Your task to perform on an android device: turn on priority inbox in the gmail app Image 0: 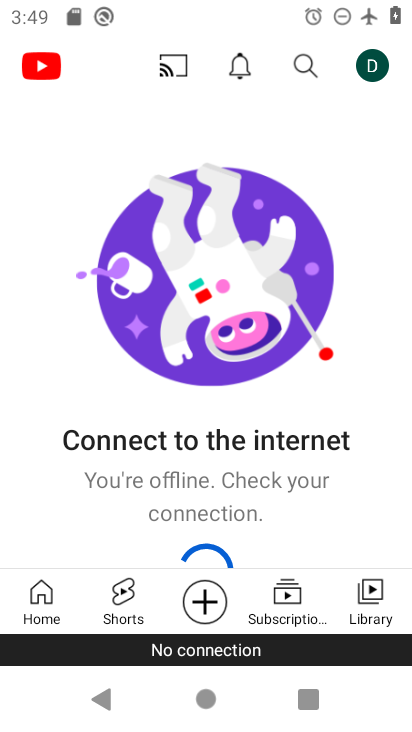
Step 0: press home button
Your task to perform on an android device: turn on priority inbox in the gmail app Image 1: 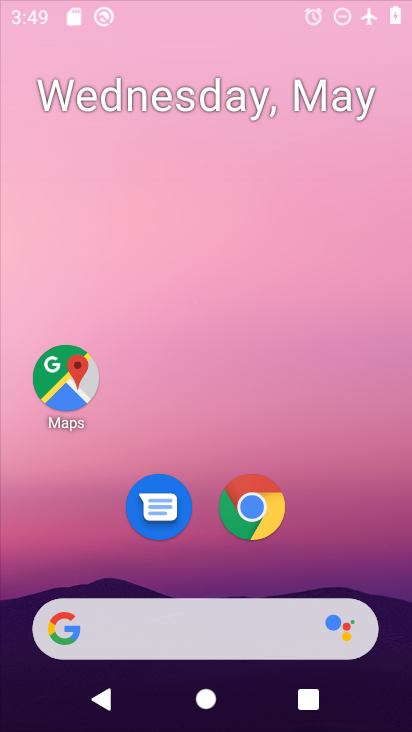
Step 1: drag from (226, 653) to (305, 18)
Your task to perform on an android device: turn on priority inbox in the gmail app Image 2: 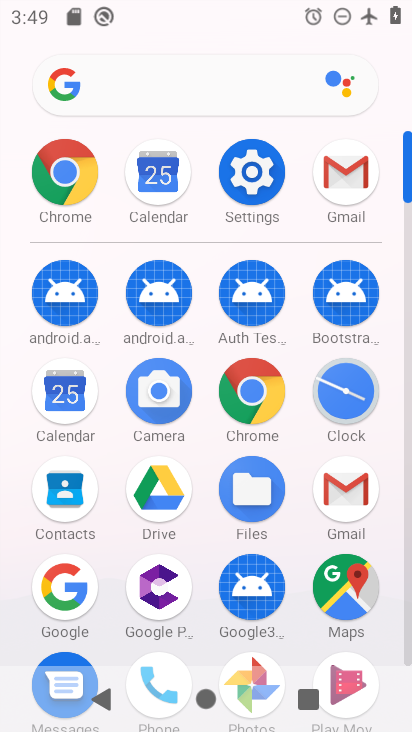
Step 2: click (365, 496)
Your task to perform on an android device: turn on priority inbox in the gmail app Image 3: 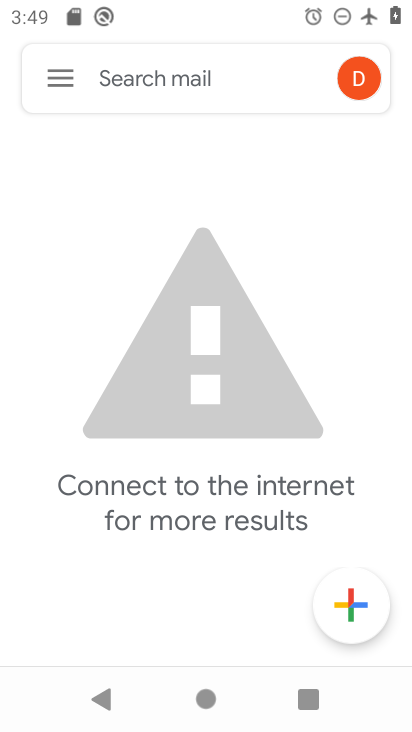
Step 3: click (35, 73)
Your task to perform on an android device: turn on priority inbox in the gmail app Image 4: 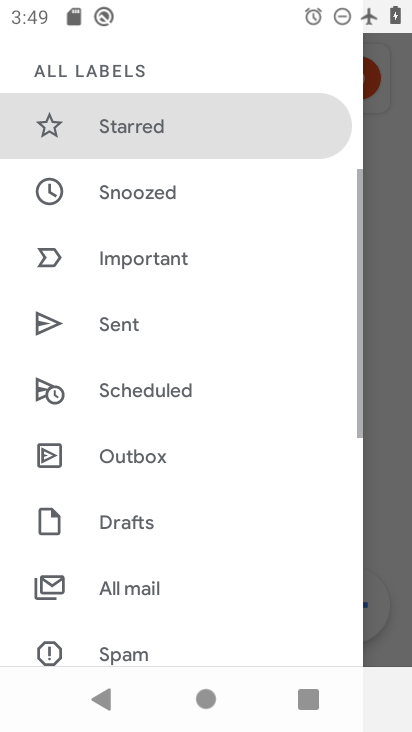
Step 4: drag from (138, 594) to (242, 5)
Your task to perform on an android device: turn on priority inbox in the gmail app Image 5: 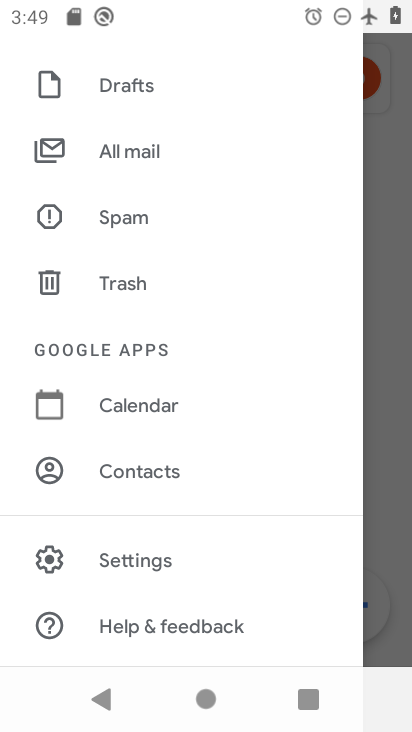
Step 5: click (142, 571)
Your task to perform on an android device: turn on priority inbox in the gmail app Image 6: 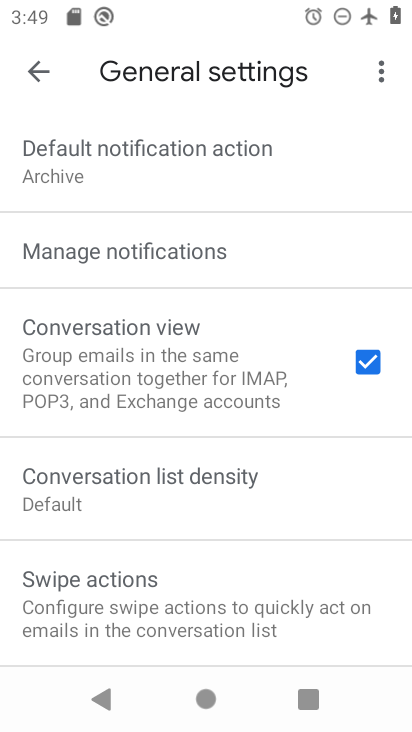
Step 6: click (44, 71)
Your task to perform on an android device: turn on priority inbox in the gmail app Image 7: 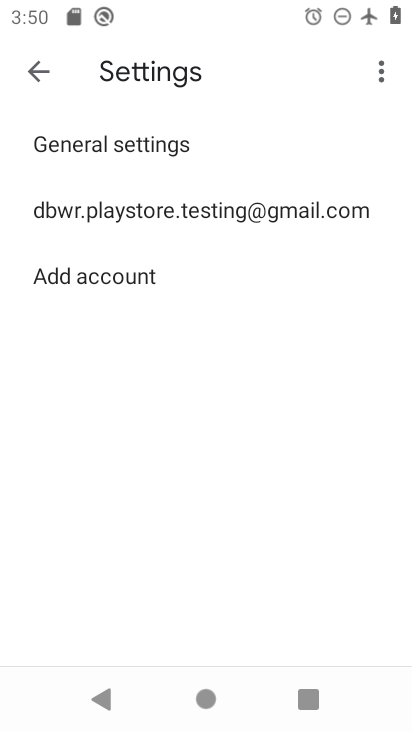
Step 7: click (235, 224)
Your task to perform on an android device: turn on priority inbox in the gmail app Image 8: 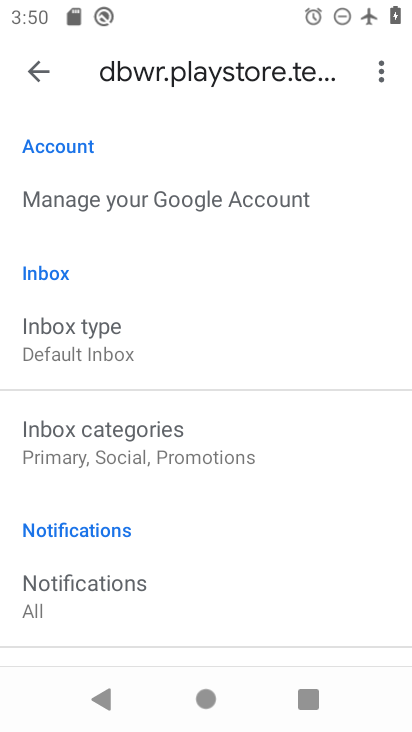
Step 8: click (132, 354)
Your task to perform on an android device: turn on priority inbox in the gmail app Image 9: 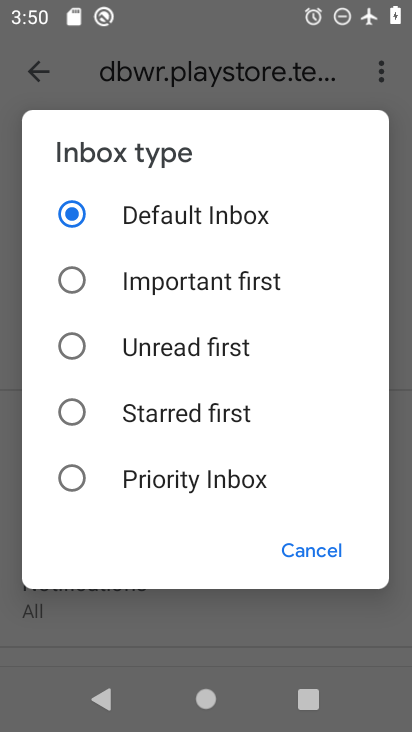
Step 9: click (134, 490)
Your task to perform on an android device: turn on priority inbox in the gmail app Image 10: 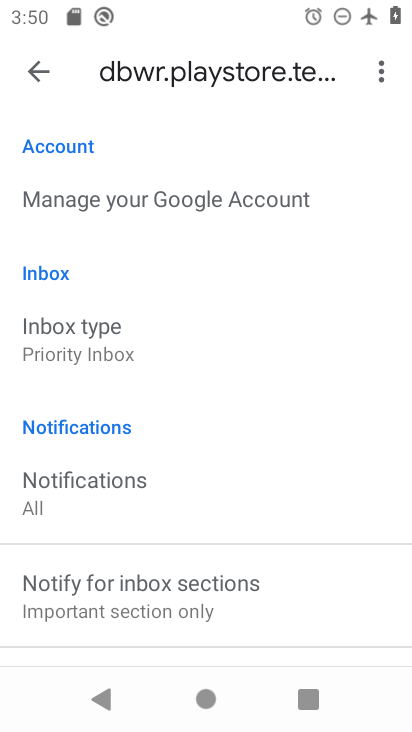
Step 10: task complete